Your task to perform on an android device: Go to ESPN.com Image 0: 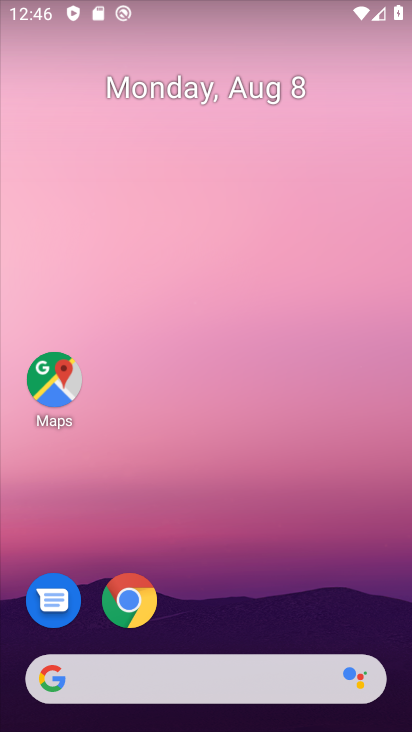
Step 0: press home button
Your task to perform on an android device: Go to ESPN.com Image 1: 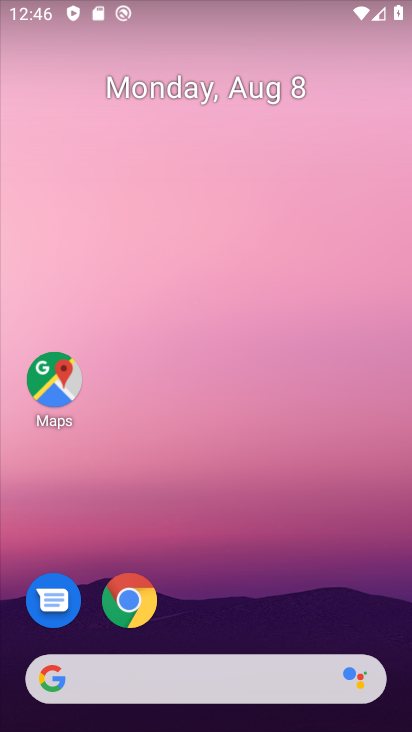
Step 1: drag from (240, 604) to (264, 16)
Your task to perform on an android device: Go to ESPN.com Image 2: 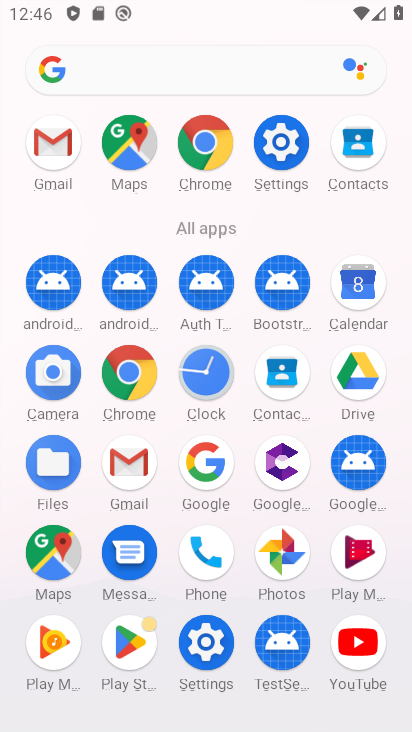
Step 2: click (219, 167)
Your task to perform on an android device: Go to ESPN.com Image 3: 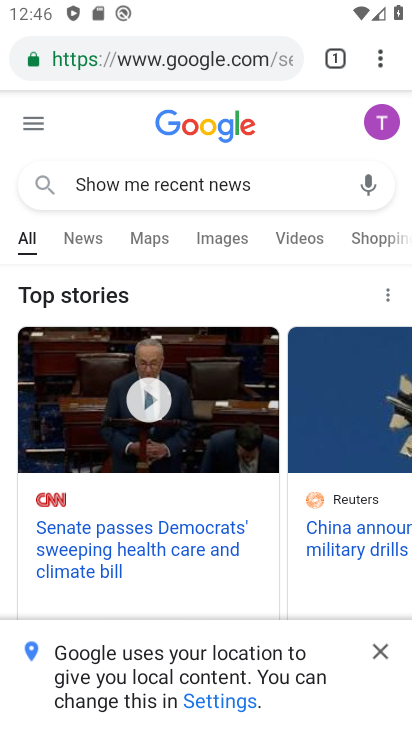
Step 3: click (178, 66)
Your task to perform on an android device: Go to ESPN.com Image 4: 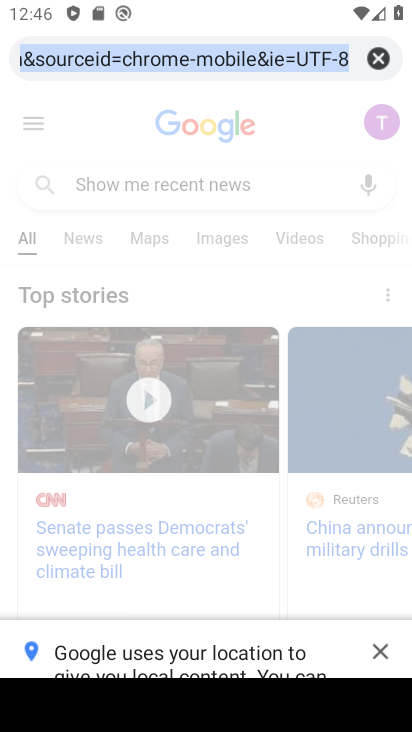
Step 4: type "ESPN.com"
Your task to perform on an android device: Go to ESPN.com Image 5: 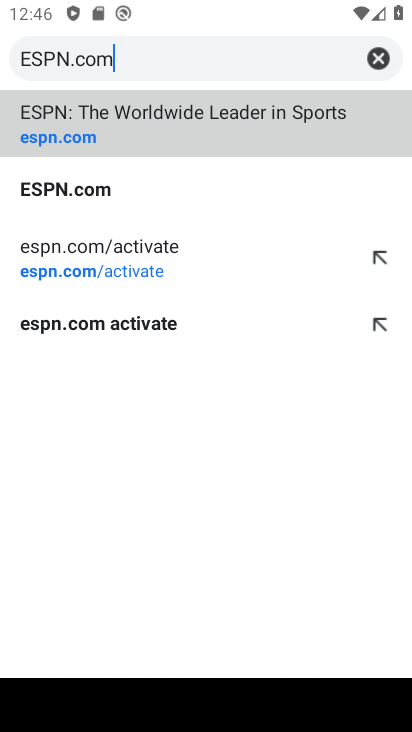
Step 5: type ""
Your task to perform on an android device: Go to ESPN.com Image 6: 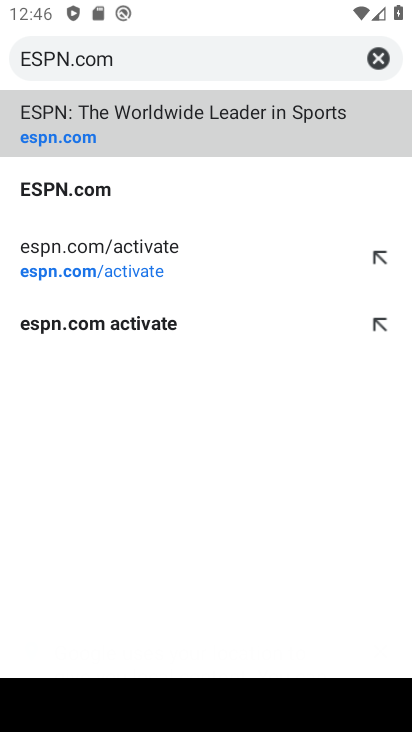
Step 6: click (120, 133)
Your task to perform on an android device: Go to ESPN.com Image 7: 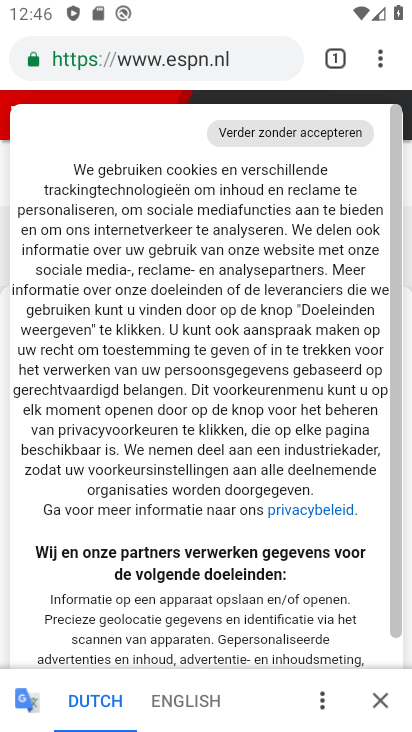
Step 7: task complete